Your task to perform on an android device: turn on showing notifications on the lock screen Image 0: 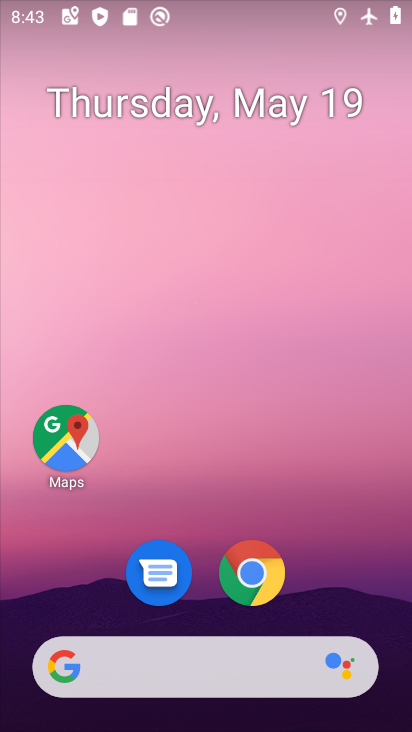
Step 0: drag from (343, 621) to (250, 5)
Your task to perform on an android device: turn on showing notifications on the lock screen Image 1: 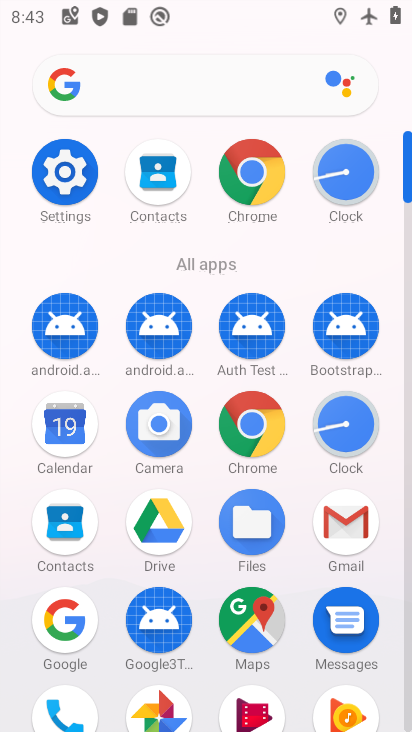
Step 1: click (65, 182)
Your task to perform on an android device: turn on showing notifications on the lock screen Image 2: 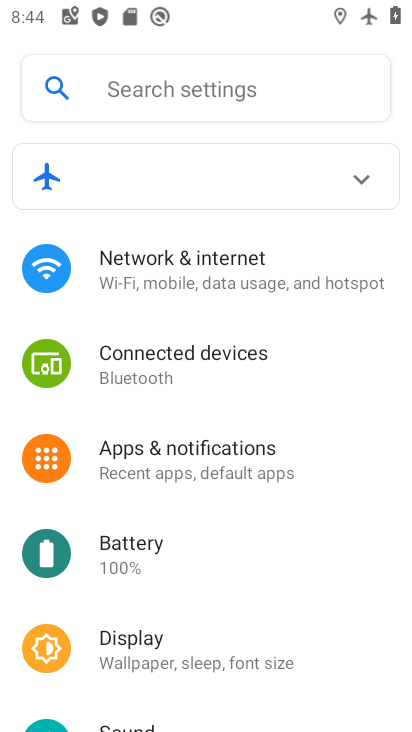
Step 2: click (197, 469)
Your task to perform on an android device: turn on showing notifications on the lock screen Image 3: 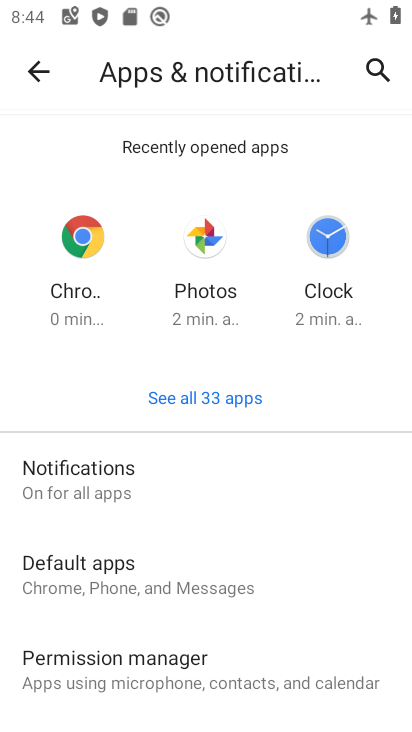
Step 3: click (103, 481)
Your task to perform on an android device: turn on showing notifications on the lock screen Image 4: 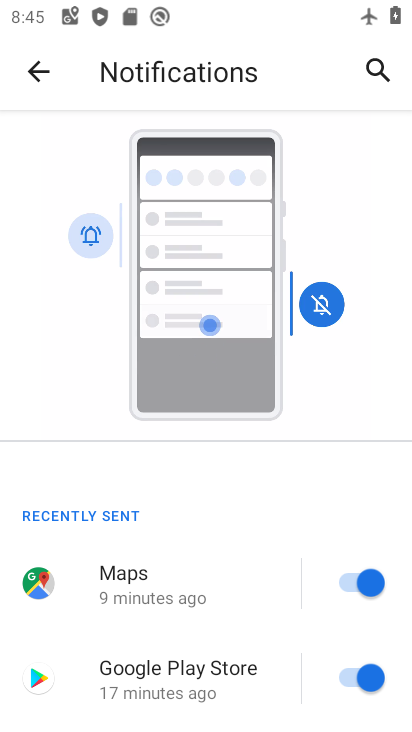
Step 4: drag from (164, 670) to (188, 80)
Your task to perform on an android device: turn on showing notifications on the lock screen Image 5: 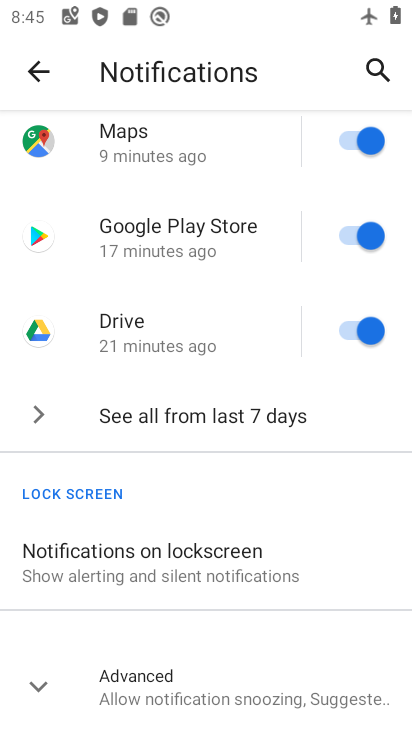
Step 5: click (155, 571)
Your task to perform on an android device: turn on showing notifications on the lock screen Image 6: 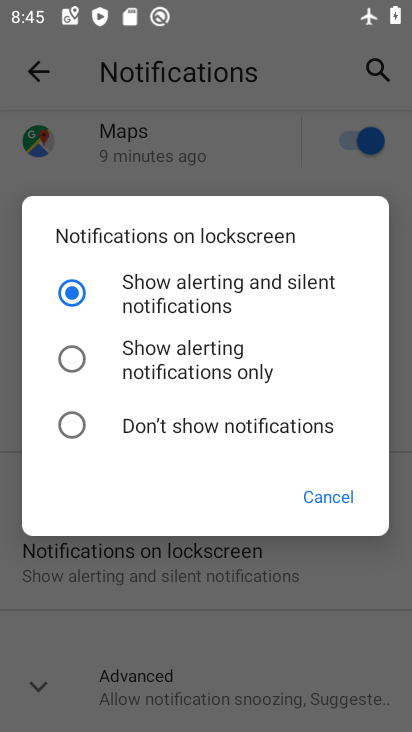
Step 6: task complete